Your task to perform on an android device: Open Youtube and go to the subscriptions tab Image 0: 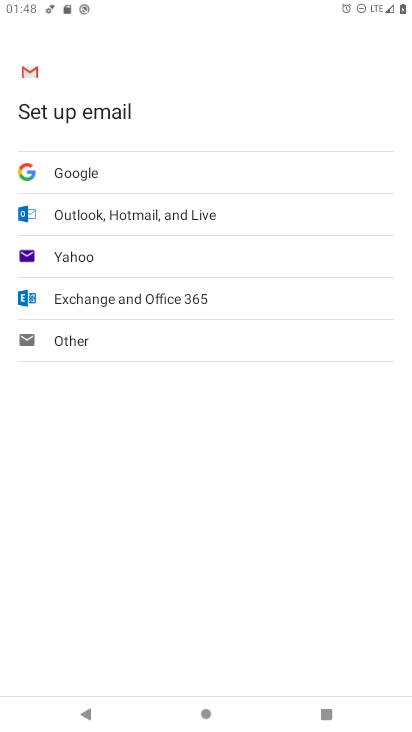
Step 0: press home button
Your task to perform on an android device: Open Youtube and go to the subscriptions tab Image 1: 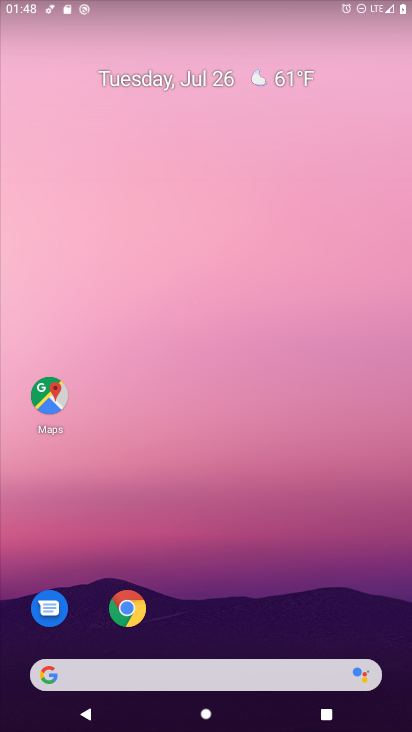
Step 1: drag from (82, 576) to (166, 144)
Your task to perform on an android device: Open Youtube and go to the subscriptions tab Image 2: 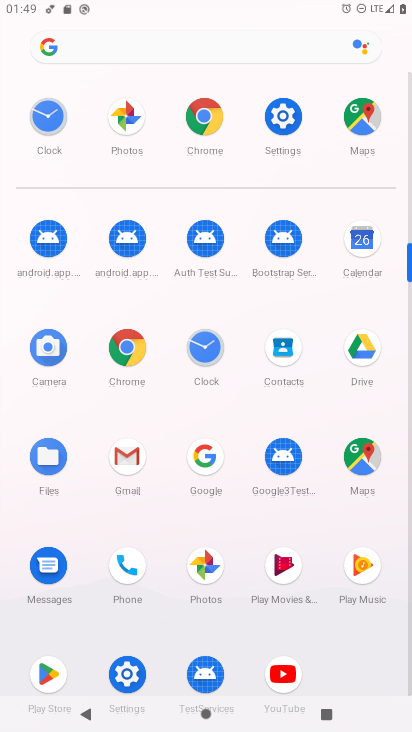
Step 2: click (269, 664)
Your task to perform on an android device: Open Youtube and go to the subscriptions tab Image 3: 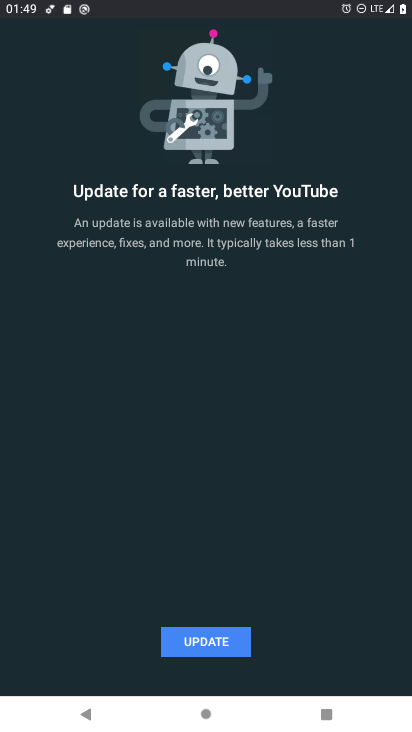
Step 3: task complete